Your task to perform on an android device: Go to Google Image 0: 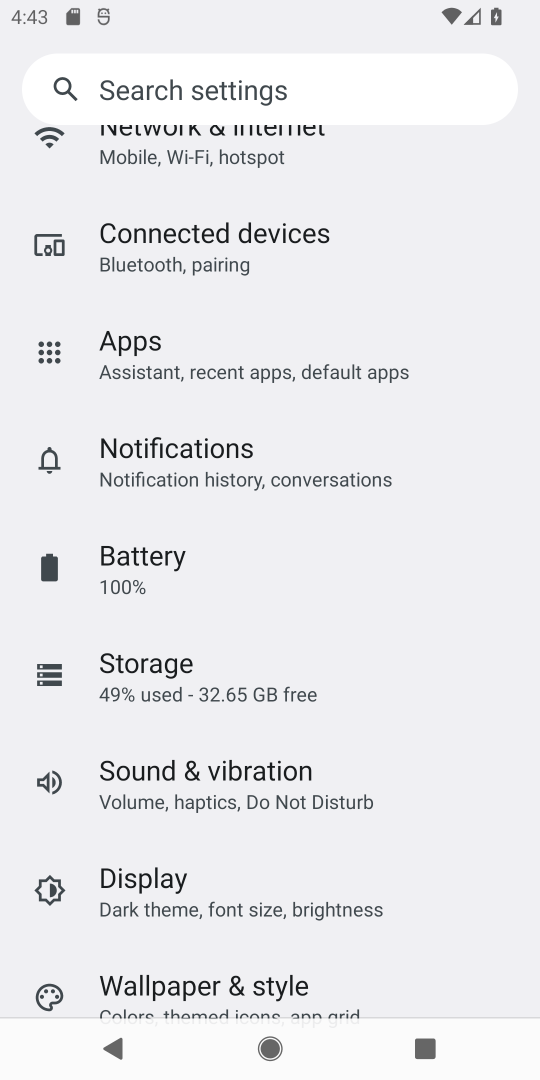
Step 0: press home button
Your task to perform on an android device: Go to Google Image 1: 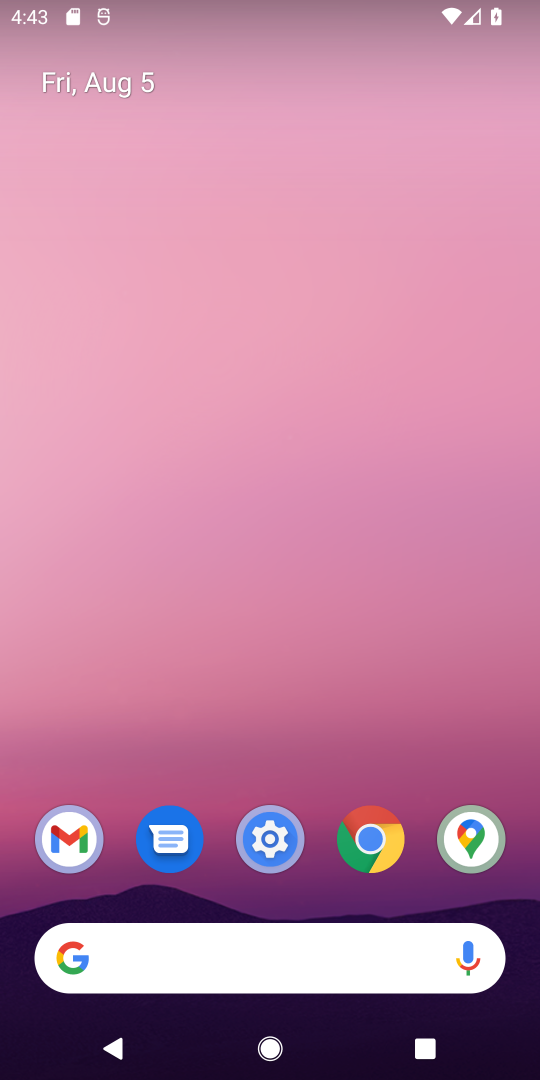
Step 1: drag from (250, 757) to (159, 254)
Your task to perform on an android device: Go to Google Image 2: 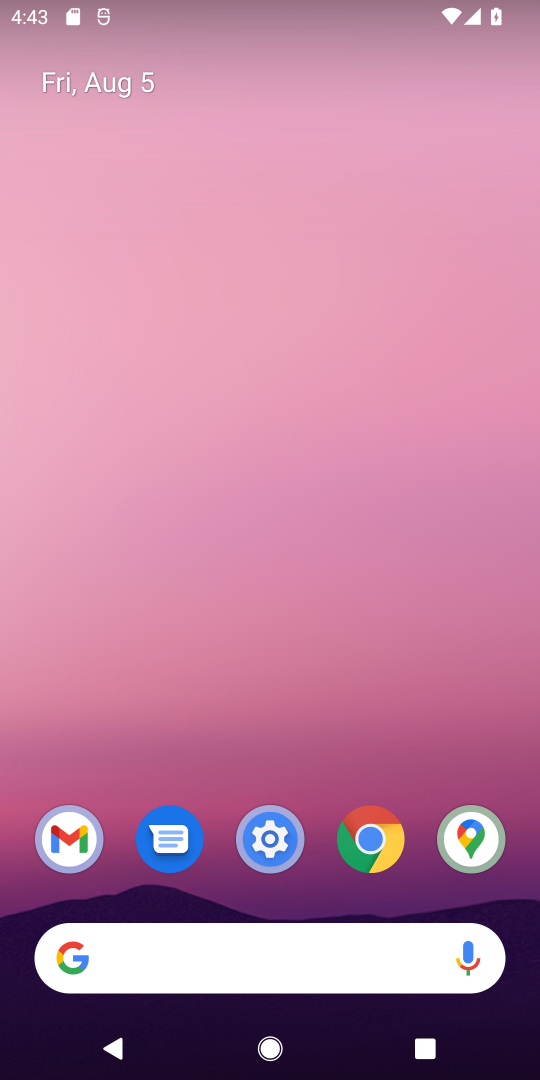
Step 2: drag from (242, 762) to (242, 233)
Your task to perform on an android device: Go to Google Image 3: 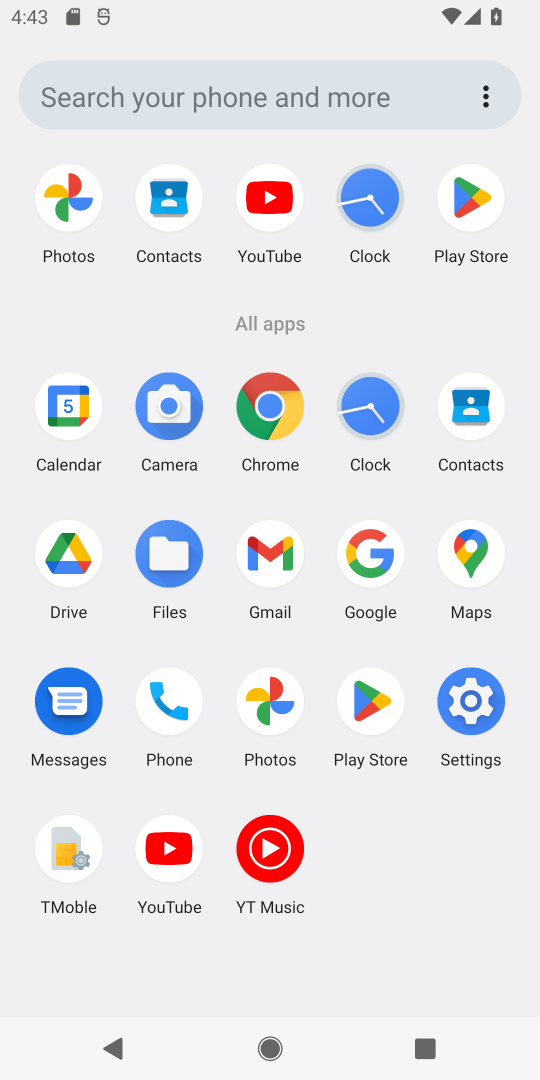
Step 3: click (381, 580)
Your task to perform on an android device: Go to Google Image 4: 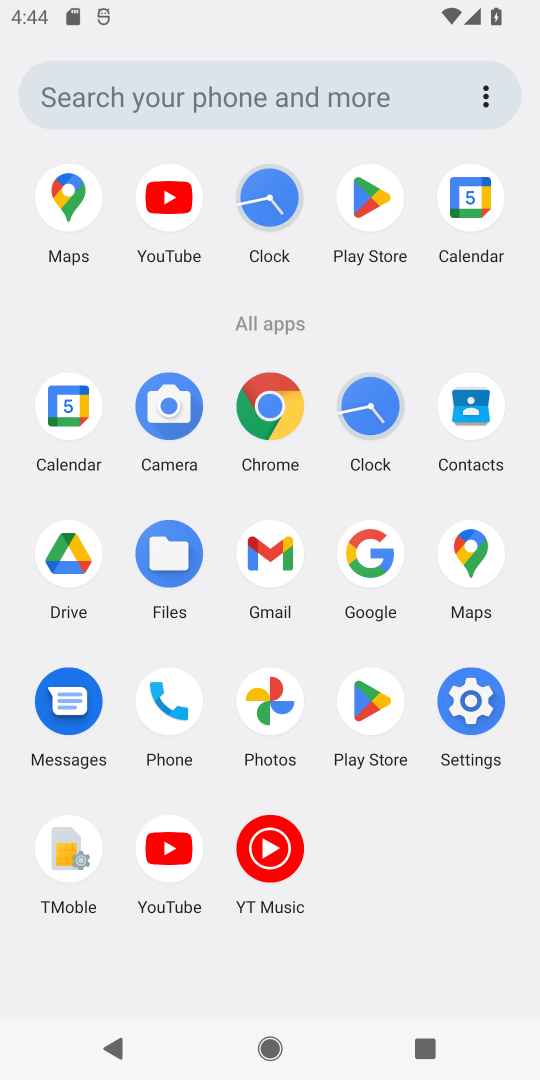
Step 4: click (382, 589)
Your task to perform on an android device: Go to Google Image 5: 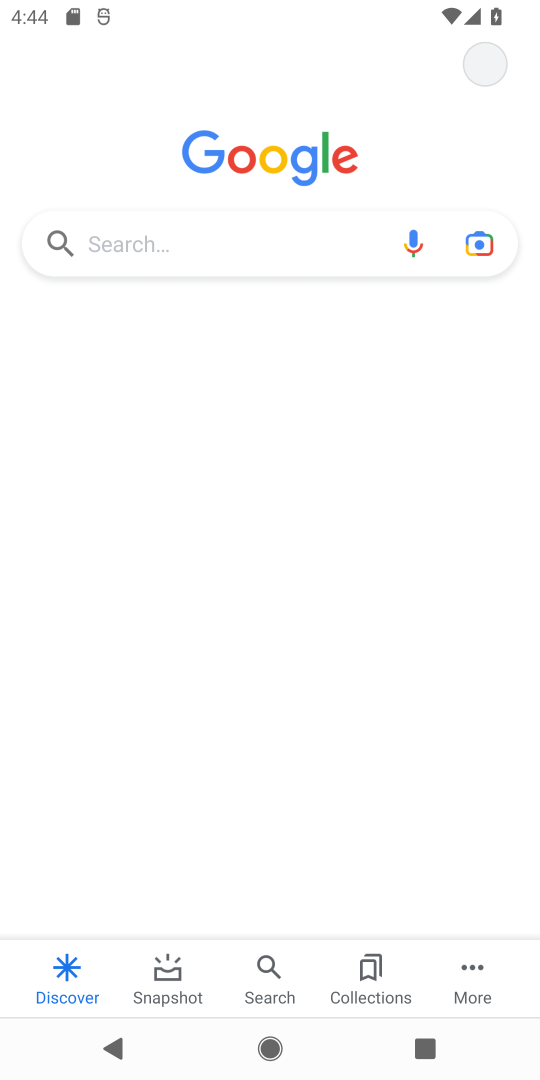
Step 5: task complete